Your task to perform on an android device: delete a single message in the gmail app Image 0: 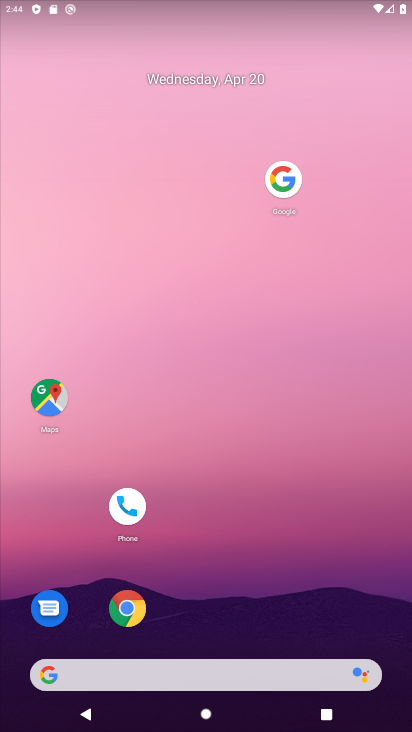
Step 0: drag from (308, 589) to (361, 75)
Your task to perform on an android device: delete a single message in the gmail app Image 1: 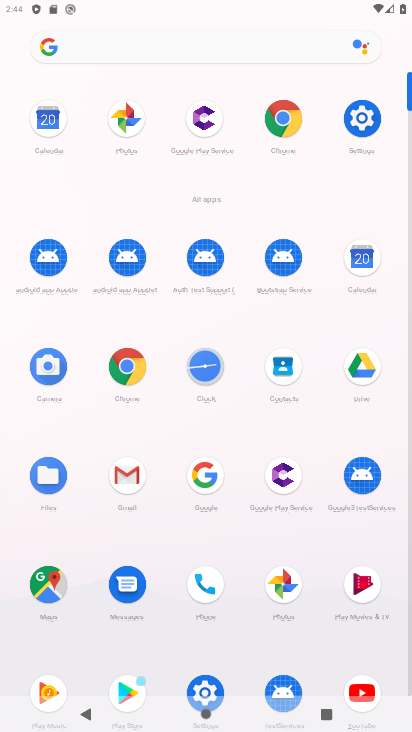
Step 1: click (135, 473)
Your task to perform on an android device: delete a single message in the gmail app Image 2: 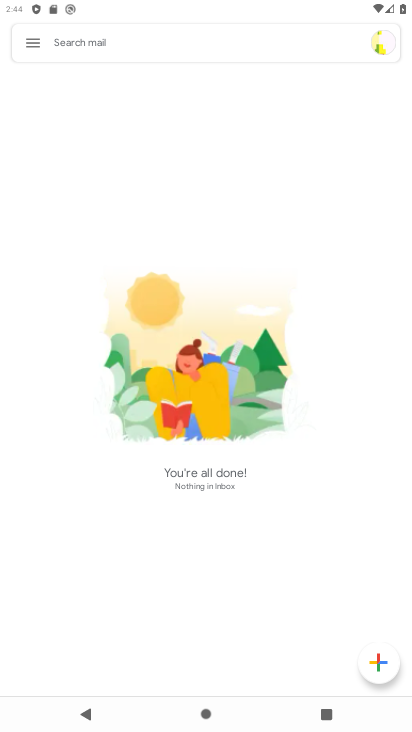
Step 2: click (29, 36)
Your task to perform on an android device: delete a single message in the gmail app Image 3: 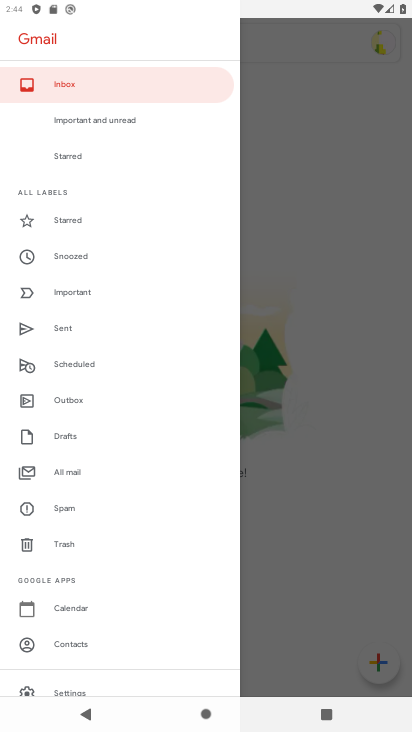
Step 3: click (78, 474)
Your task to perform on an android device: delete a single message in the gmail app Image 4: 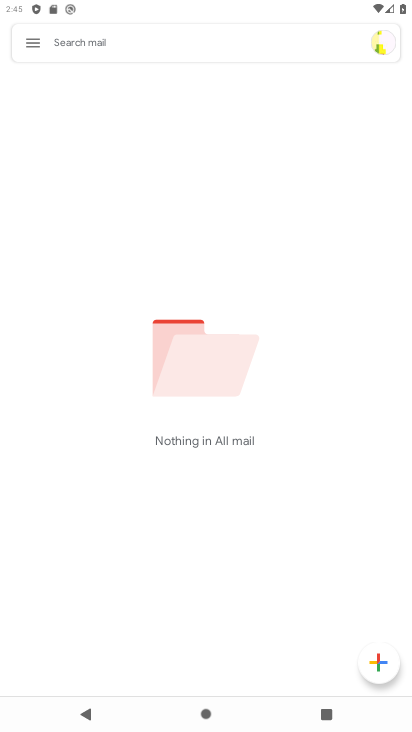
Step 4: task complete